Your task to perform on an android device: Check the news Image 0: 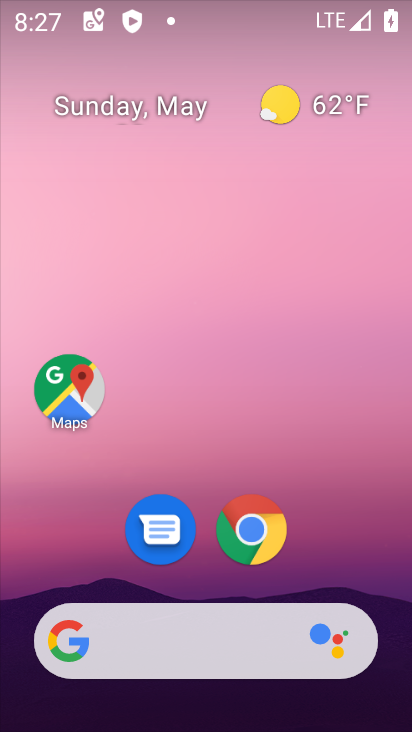
Step 0: click (186, 626)
Your task to perform on an android device: Check the news Image 1: 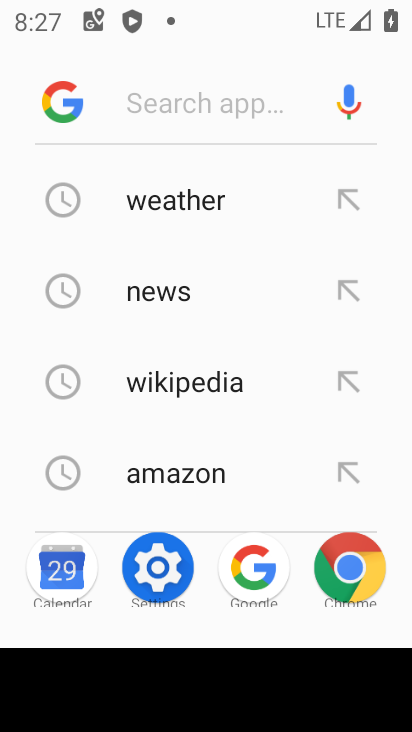
Step 1: click (170, 291)
Your task to perform on an android device: Check the news Image 2: 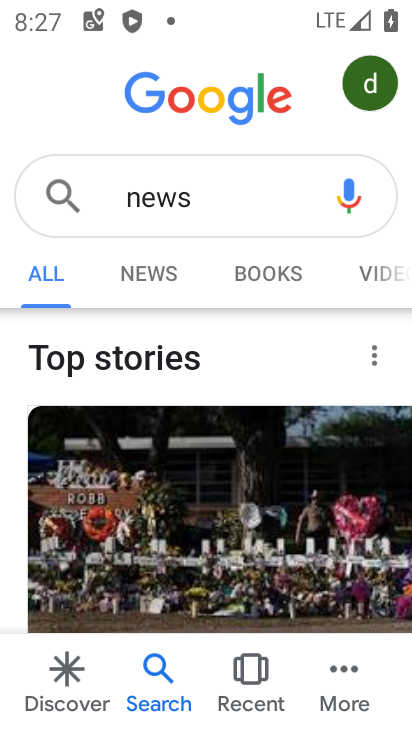
Step 2: task complete